Your task to perform on an android device: What's the weather like in Delhi? Image 0: 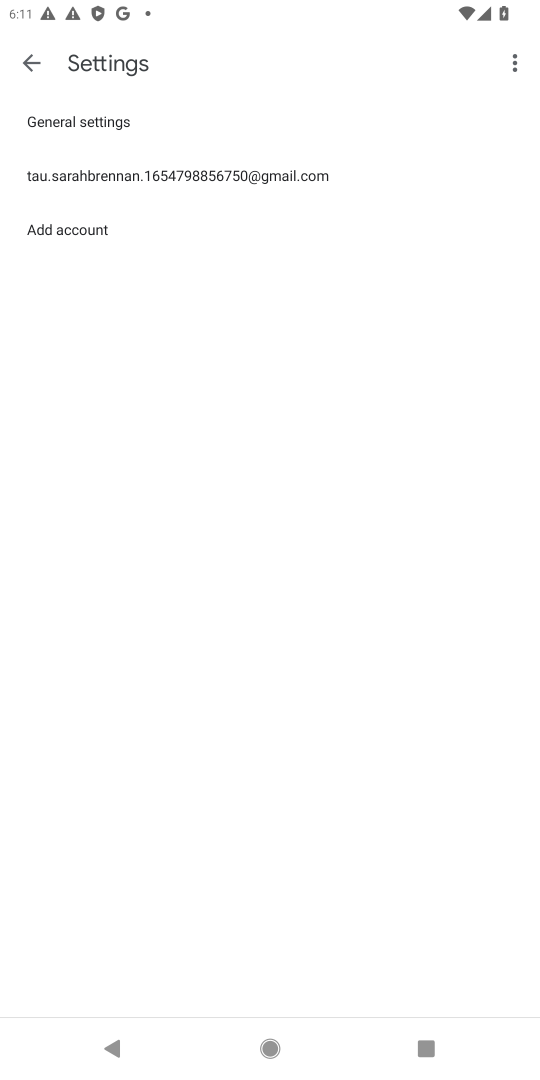
Step 0: press home button
Your task to perform on an android device: What's the weather like in Delhi? Image 1: 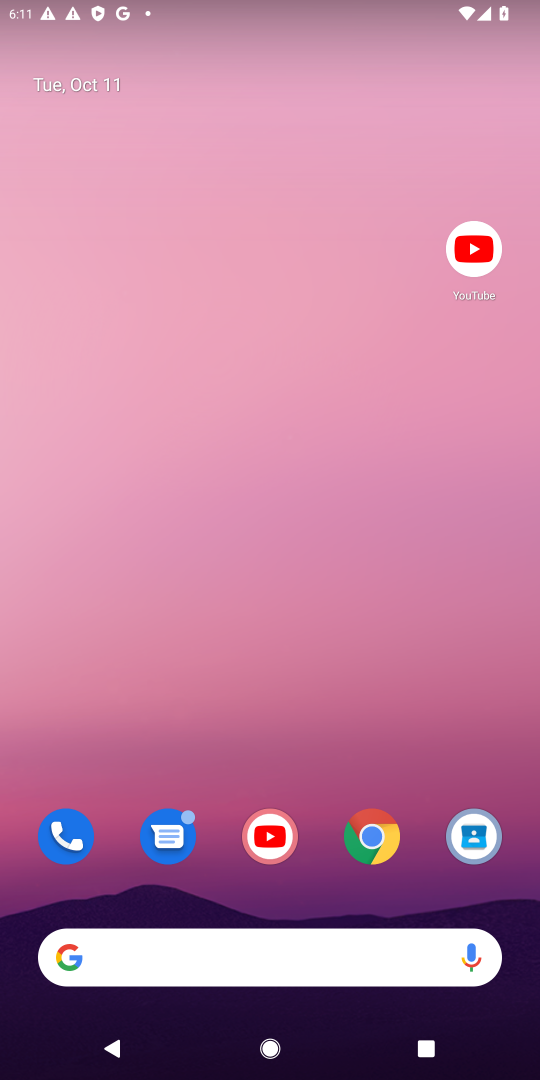
Step 1: click (373, 843)
Your task to perform on an android device: What's the weather like in Delhi? Image 2: 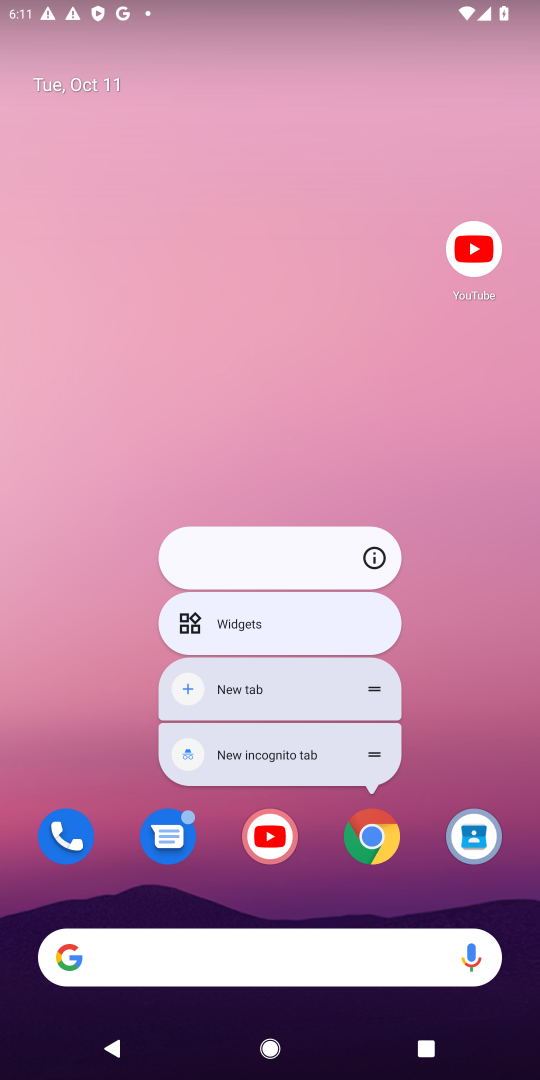
Step 2: click (373, 842)
Your task to perform on an android device: What's the weather like in Delhi? Image 3: 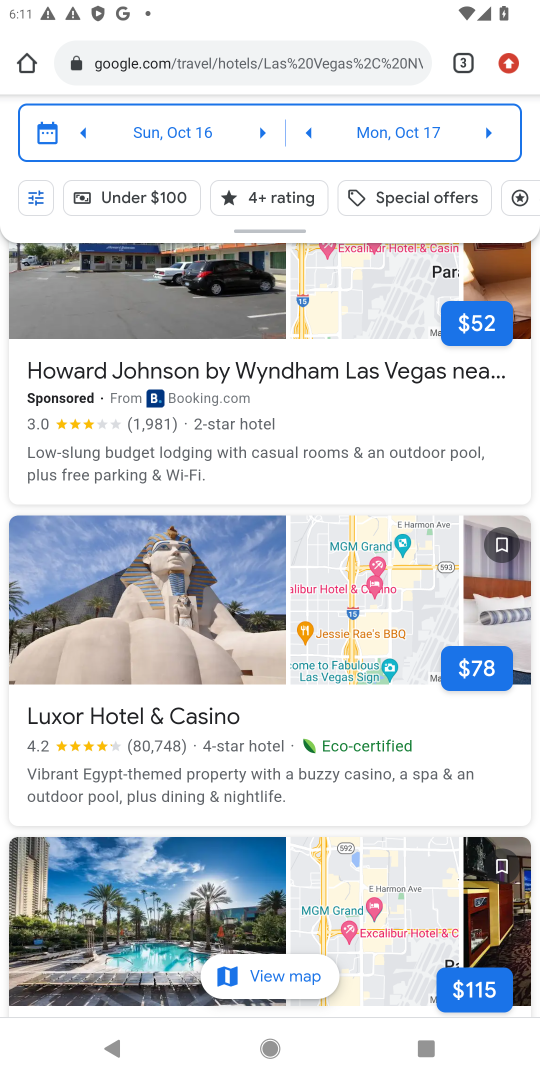
Step 3: click (389, 48)
Your task to perform on an android device: What's the weather like in Delhi? Image 4: 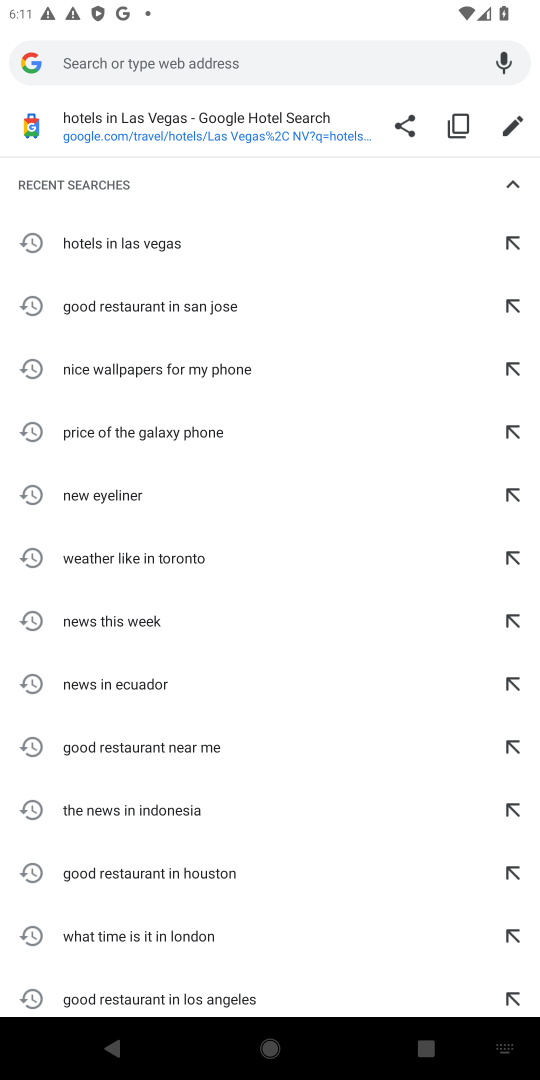
Step 4: type "weather like in Delhi"
Your task to perform on an android device: What's the weather like in Delhi? Image 5: 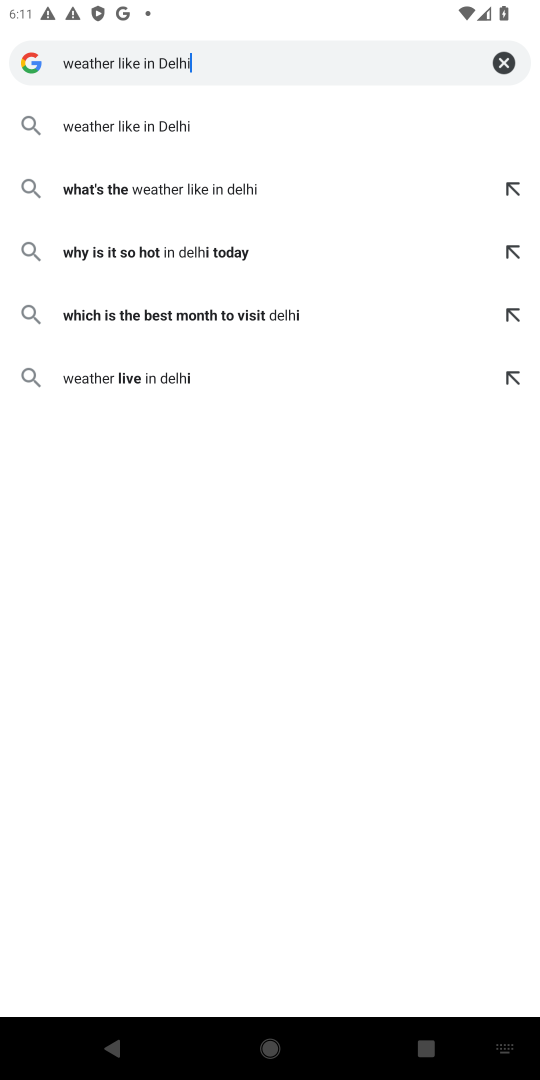
Step 5: press enter
Your task to perform on an android device: What's the weather like in Delhi? Image 6: 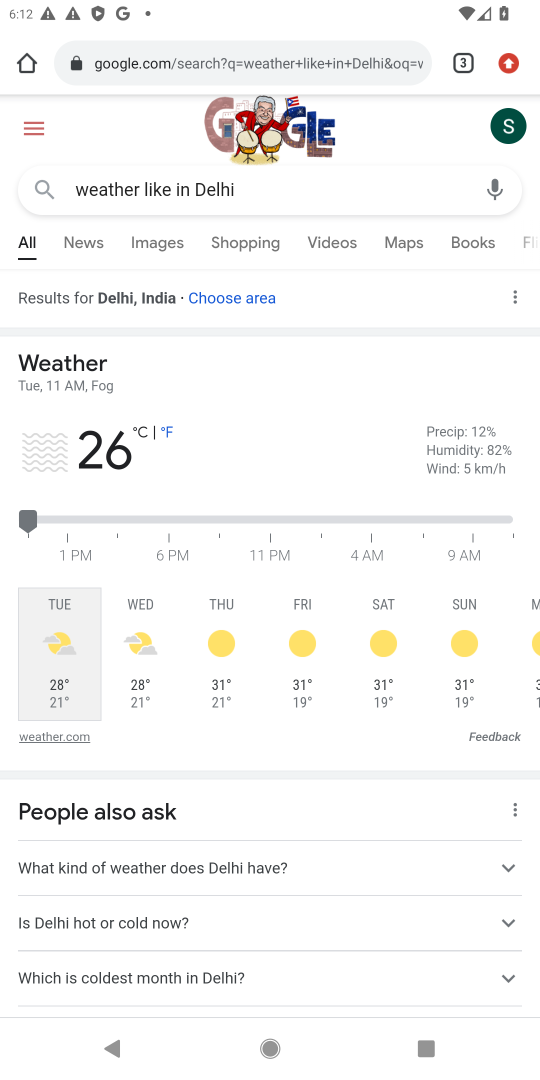
Step 6: task complete